Your task to perform on an android device: Show me recent news Image 0: 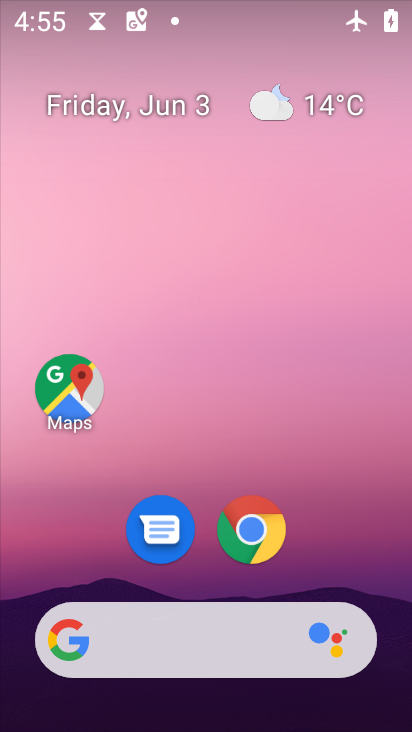
Step 0: drag from (328, 588) to (312, 0)
Your task to perform on an android device: Show me recent news Image 1: 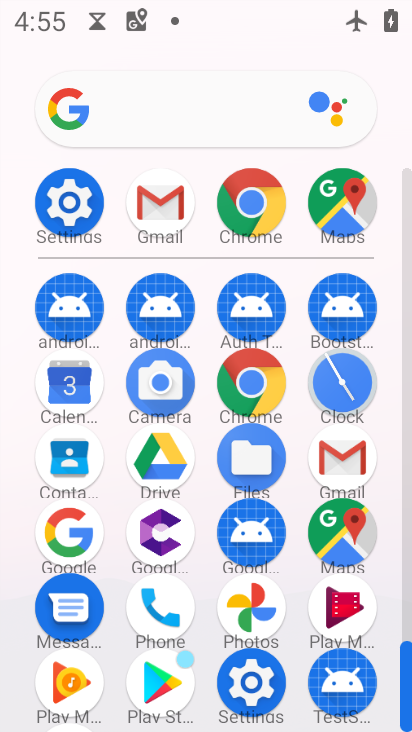
Step 1: click (258, 205)
Your task to perform on an android device: Show me recent news Image 2: 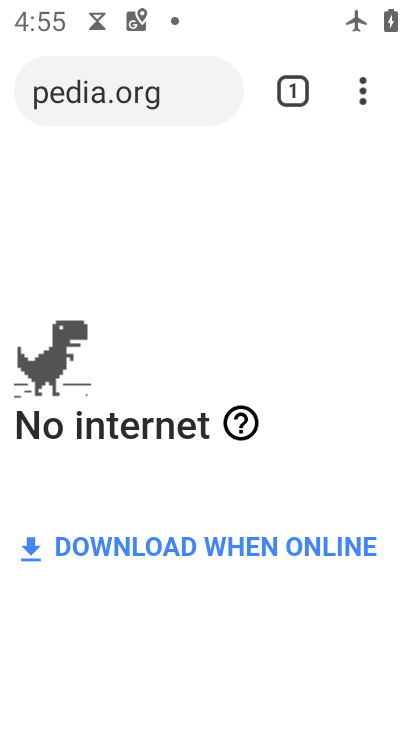
Step 2: click (372, 77)
Your task to perform on an android device: Show me recent news Image 3: 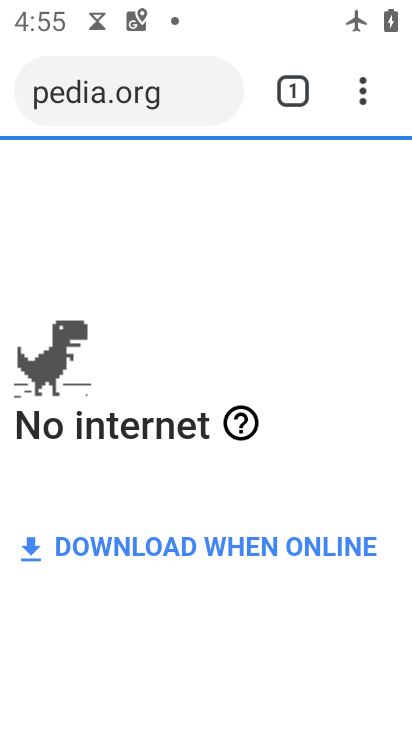
Step 3: task complete